Your task to perform on an android device: What's the latest news in space? Image 0: 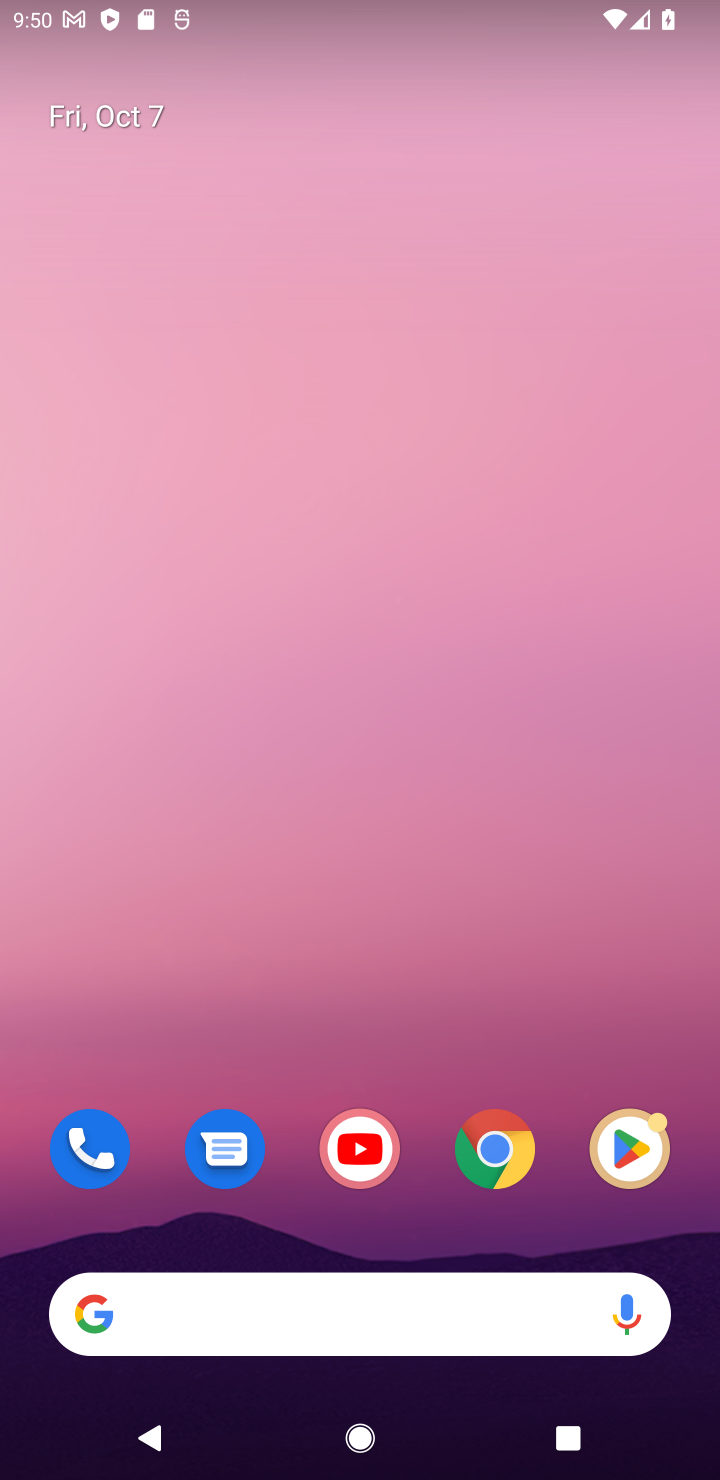
Step 0: click (328, 1358)
Your task to perform on an android device: What's the latest news in space? Image 1: 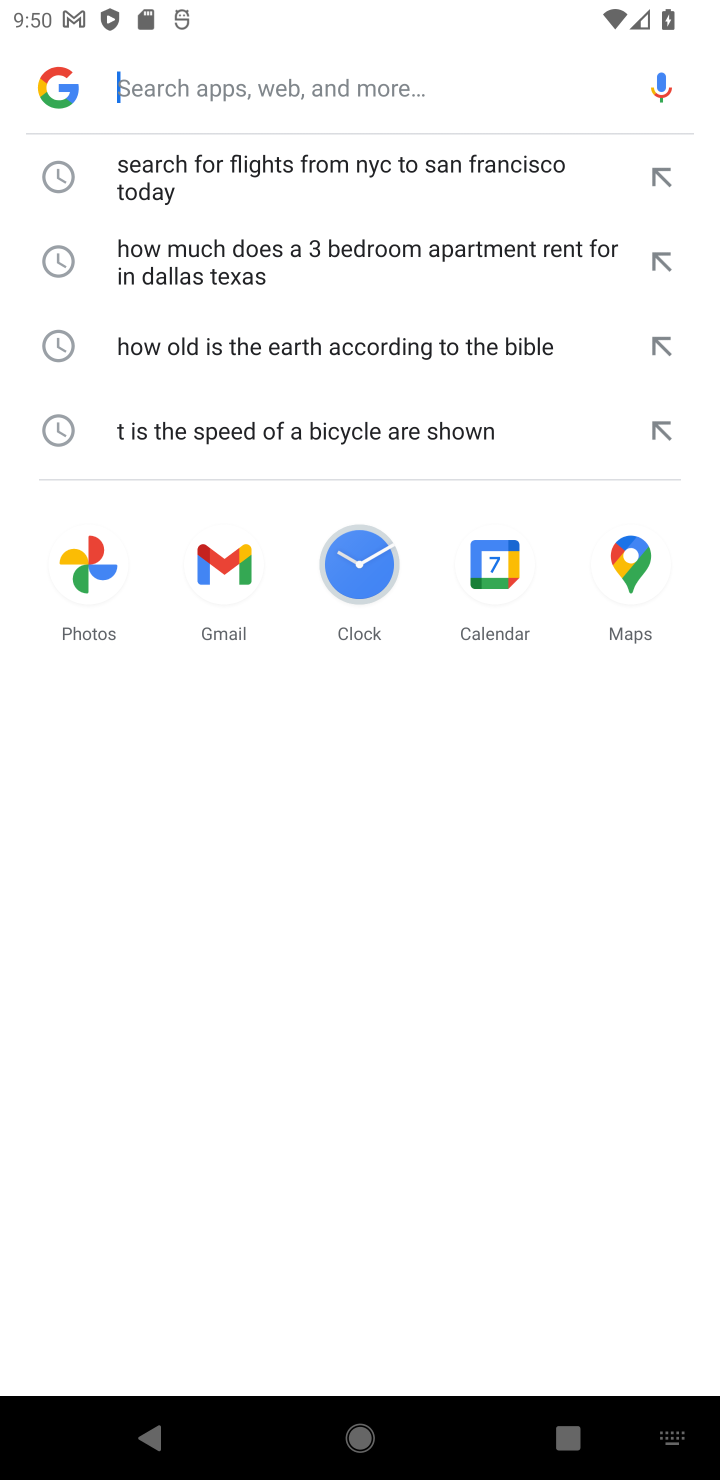
Step 1: type "What's the latest news in space?"
Your task to perform on an android device: What's the latest news in space? Image 2: 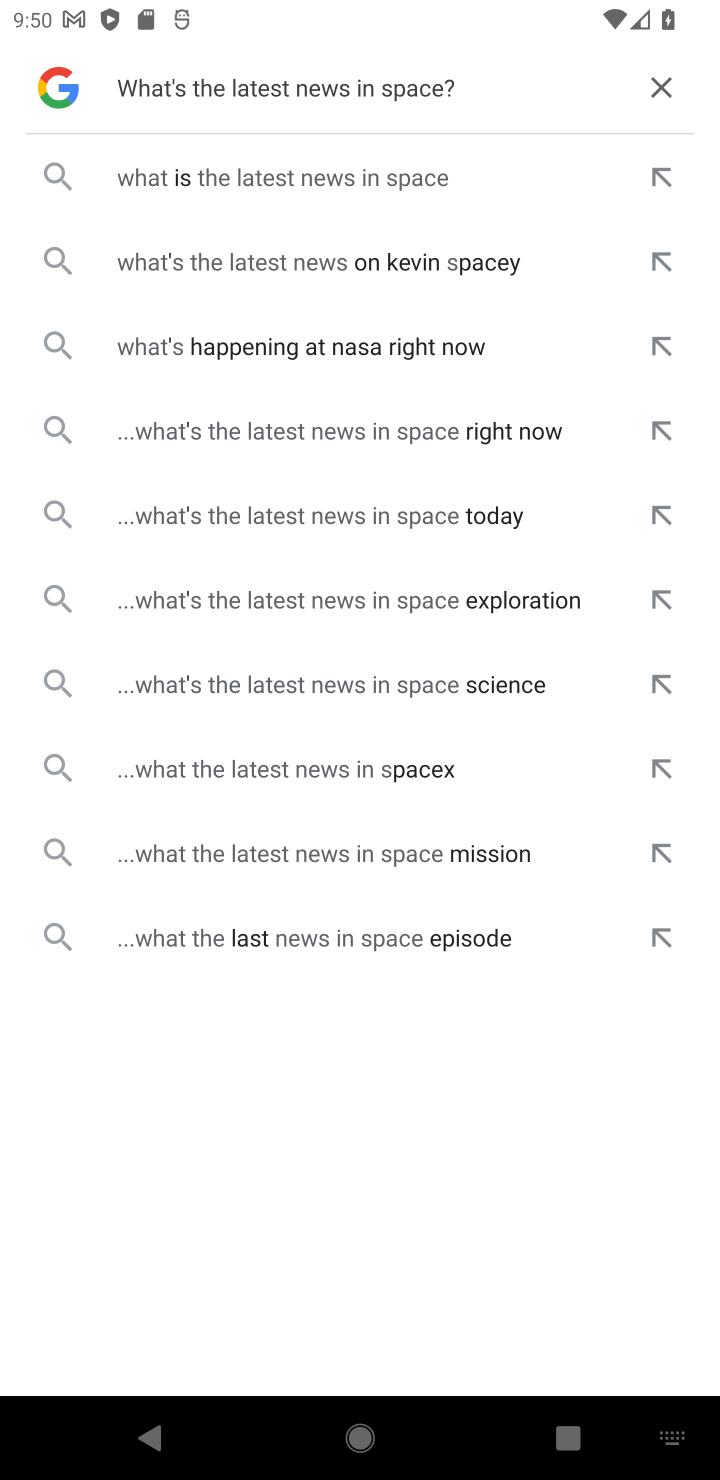
Step 2: click (205, 169)
Your task to perform on an android device: What's the latest news in space? Image 3: 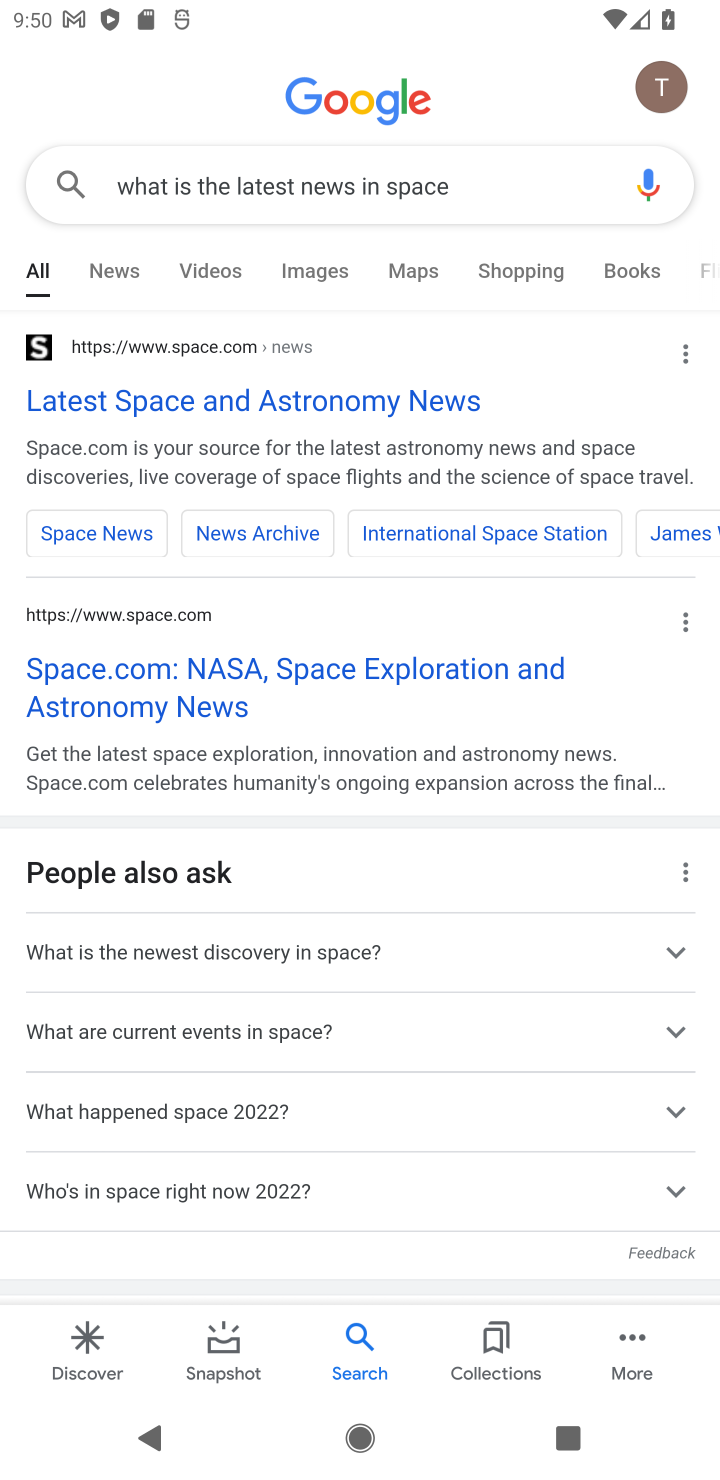
Step 3: click (207, 414)
Your task to perform on an android device: What's the latest news in space? Image 4: 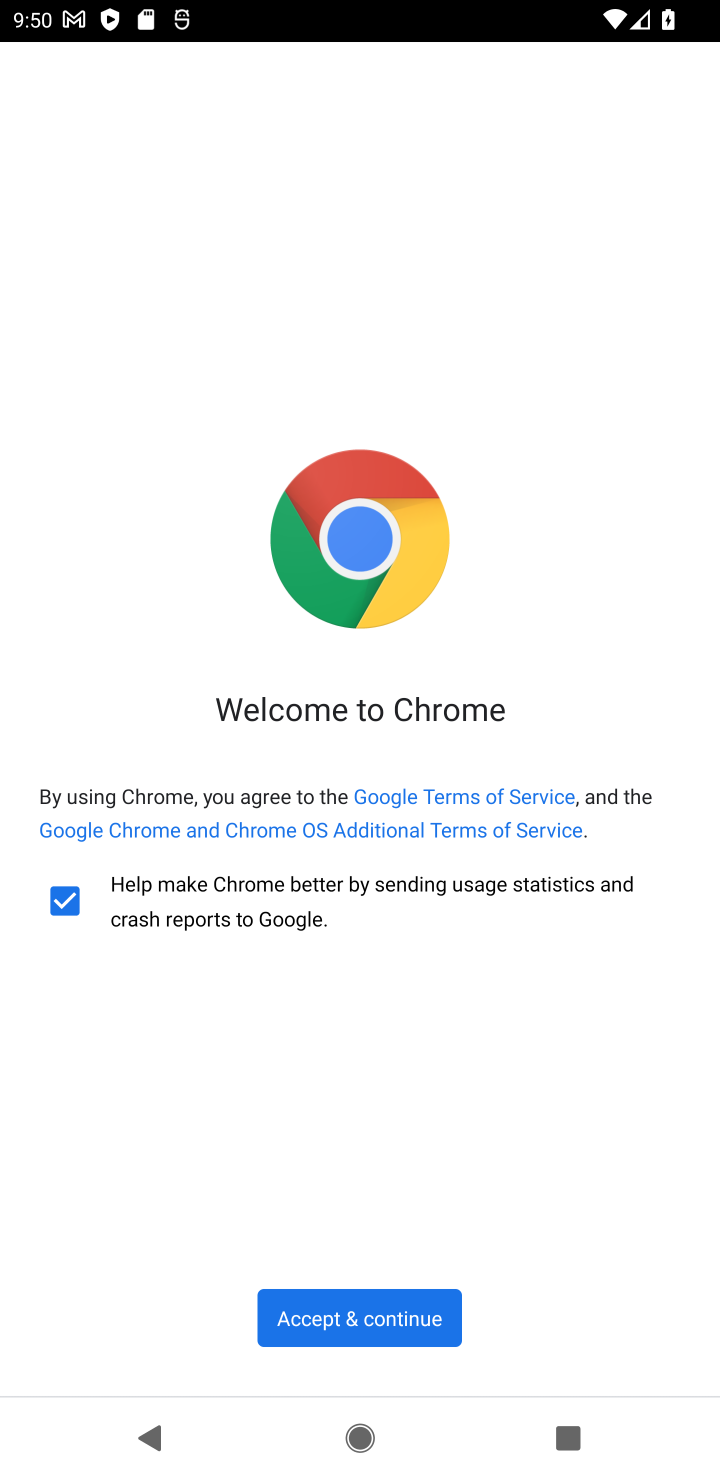
Step 4: click (369, 1307)
Your task to perform on an android device: What's the latest news in space? Image 5: 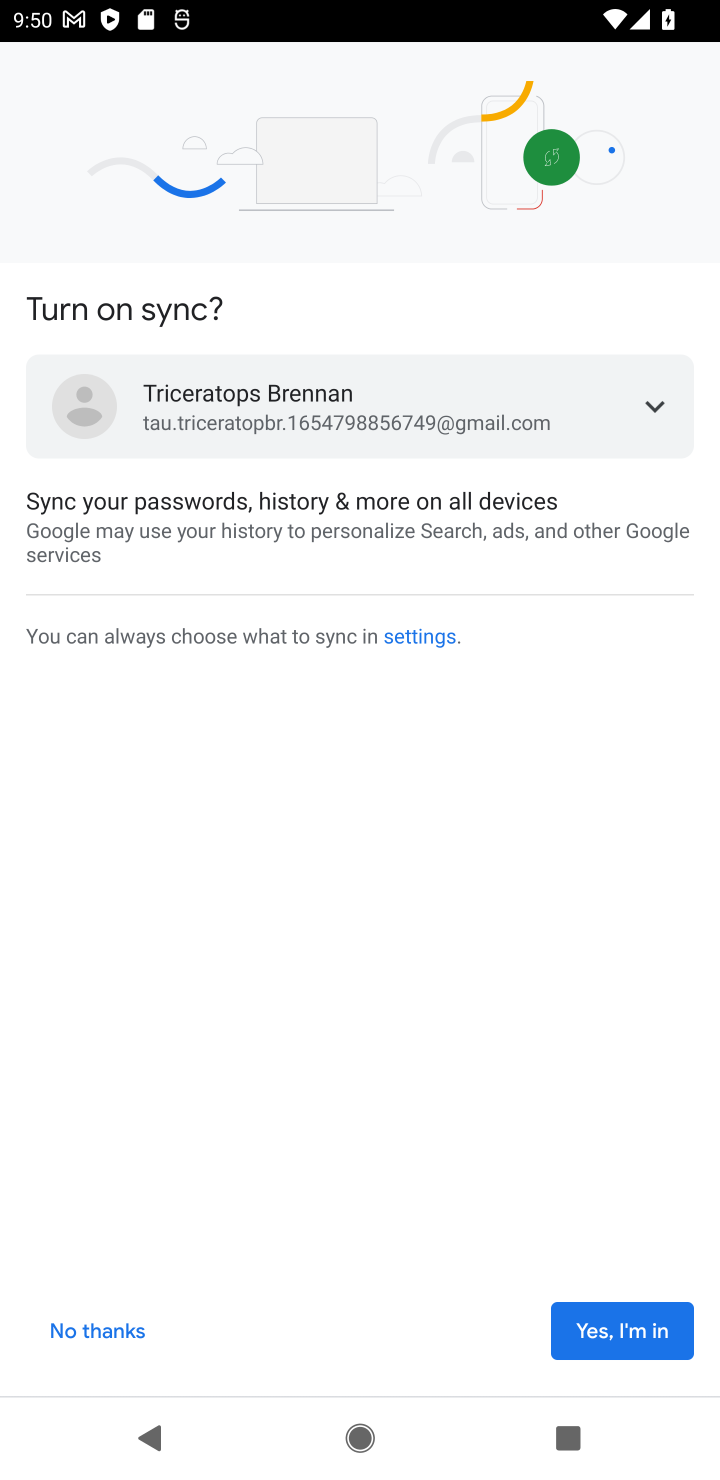
Step 5: click (655, 1338)
Your task to perform on an android device: What's the latest news in space? Image 6: 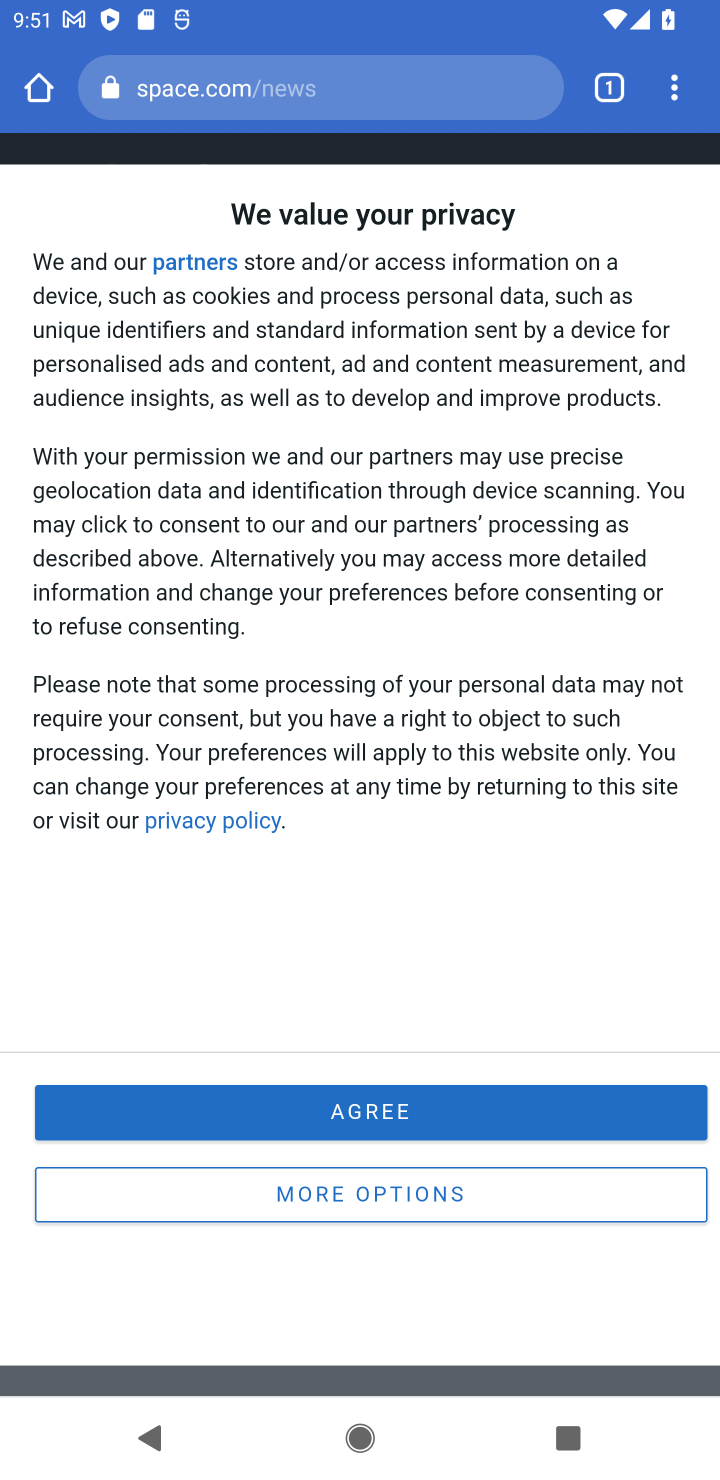
Step 6: click (469, 1117)
Your task to perform on an android device: What's the latest news in space? Image 7: 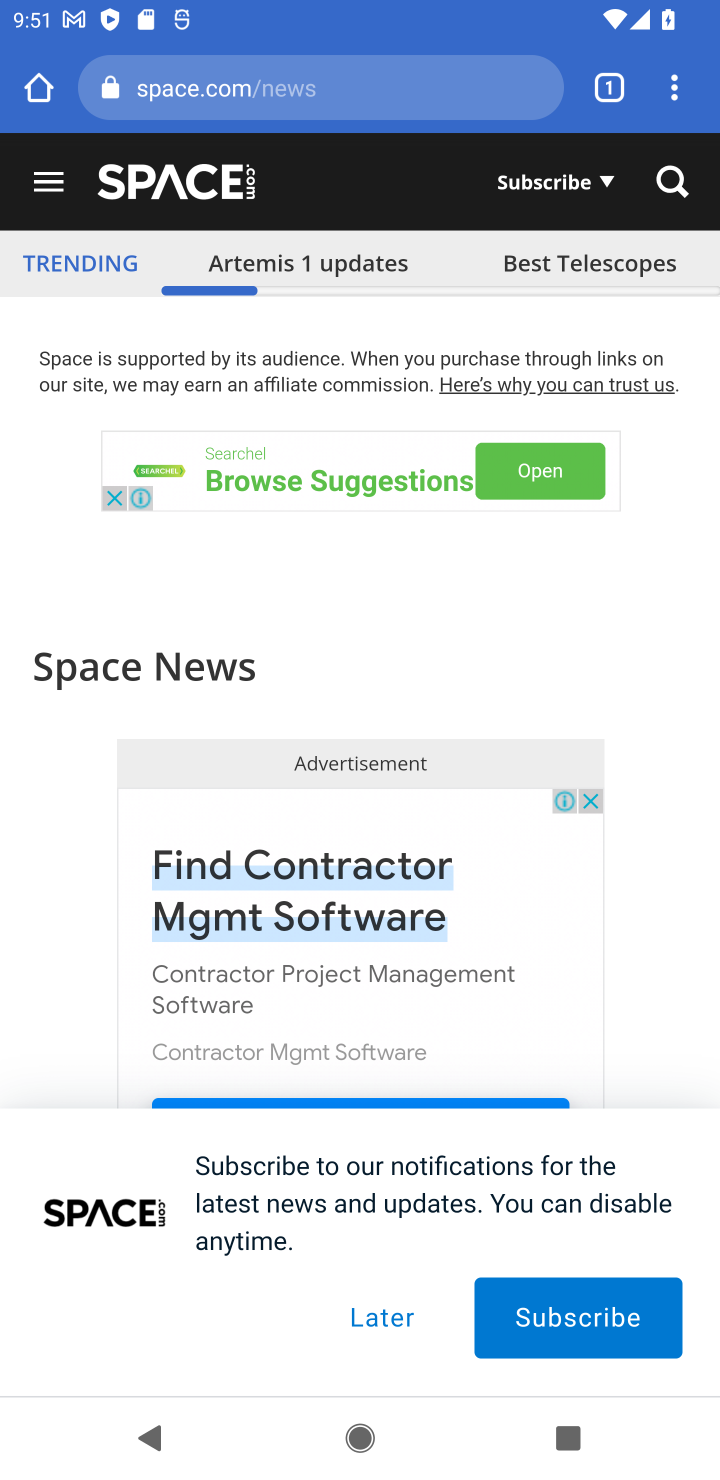
Step 7: task complete